Your task to perform on an android device: check battery use Image 0: 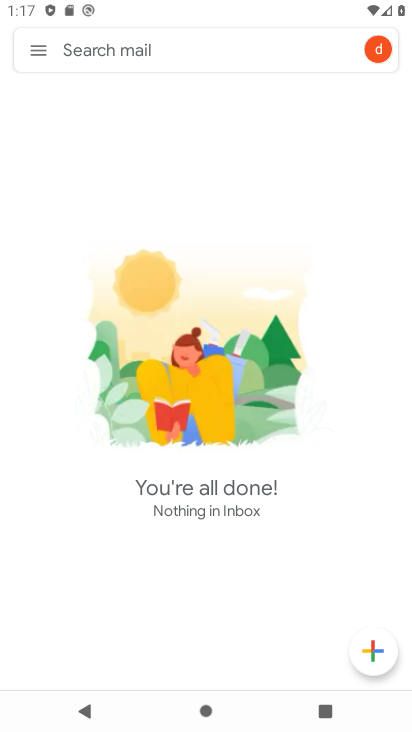
Step 0: press home button
Your task to perform on an android device: check battery use Image 1: 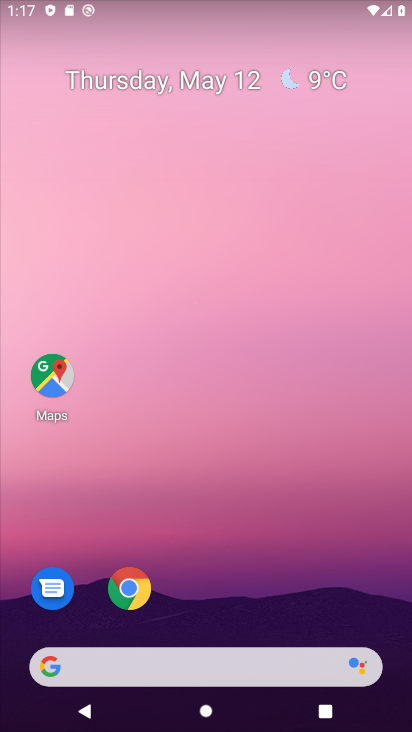
Step 1: click (381, 156)
Your task to perform on an android device: check battery use Image 2: 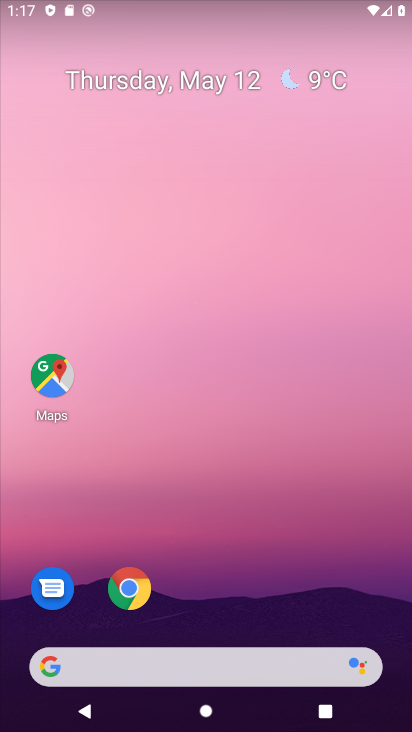
Step 2: drag from (382, 659) to (341, 120)
Your task to perform on an android device: check battery use Image 3: 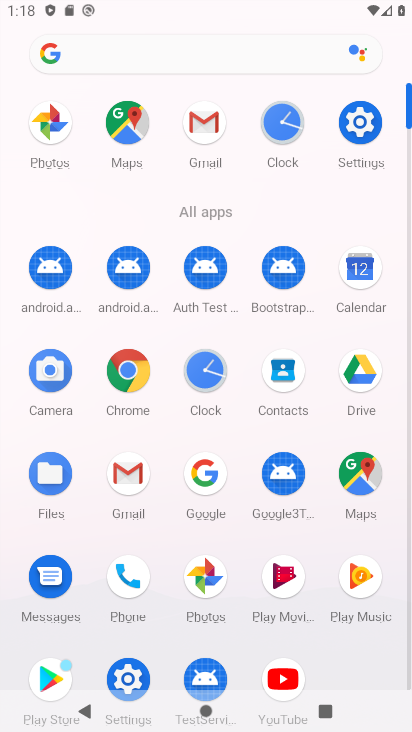
Step 3: click (116, 670)
Your task to perform on an android device: check battery use Image 4: 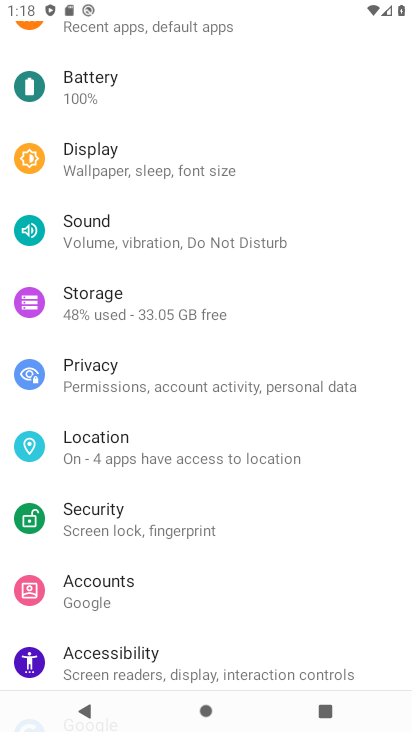
Step 4: click (196, 80)
Your task to perform on an android device: check battery use Image 5: 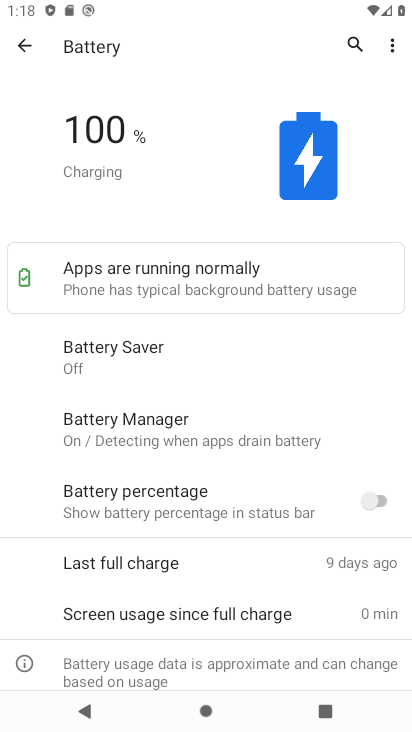
Step 5: task complete